Your task to perform on an android device: Check the news Image 0: 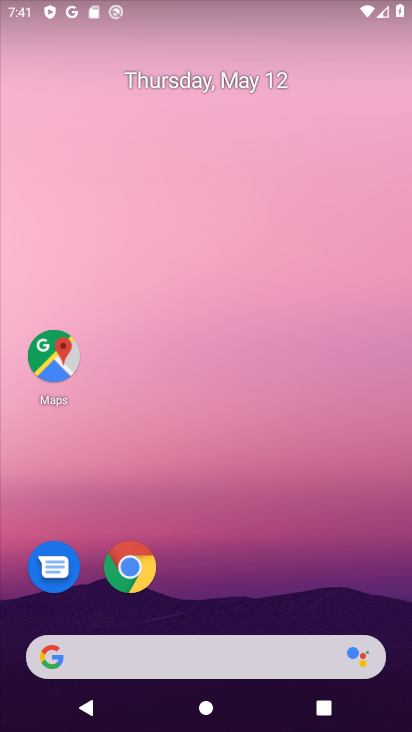
Step 0: drag from (292, 644) to (351, 128)
Your task to perform on an android device: Check the news Image 1: 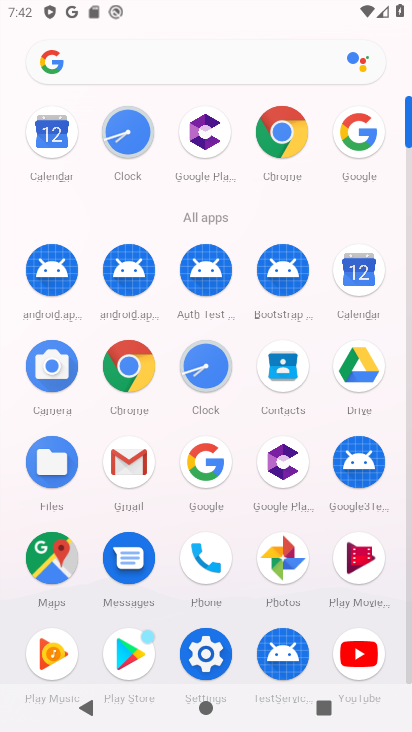
Step 1: drag from (167, 506) to (192, 356)
Your task to perform on an android device: Check the news Image 2: 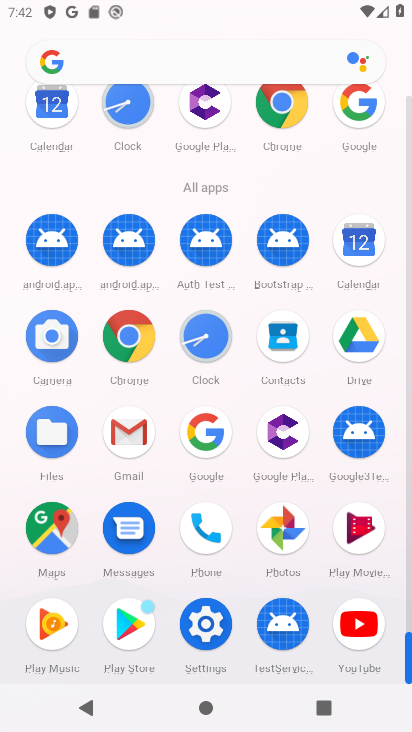
Step 2: click (140, 344)
Your task to perform on an android device: Check the news Image 3: 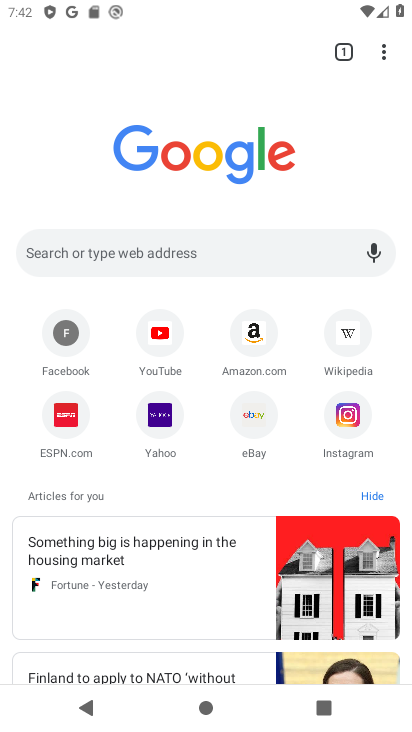
Step 3: click (209, 254)
Your task to perform on an android device: Check the news Image 4: 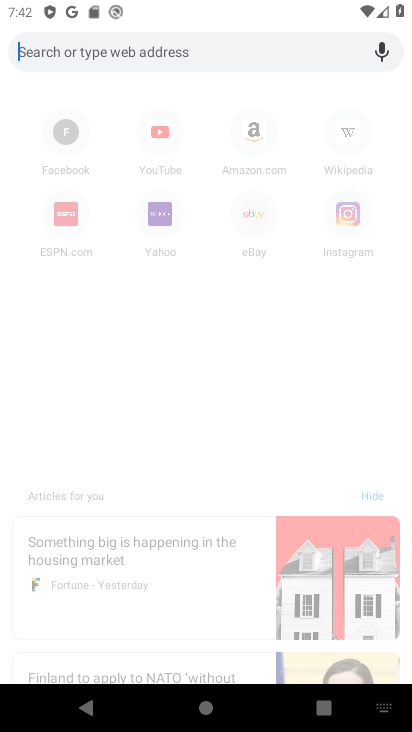
Step 4: type "news"
Your task to perform on an android device: Check the news Image 5: 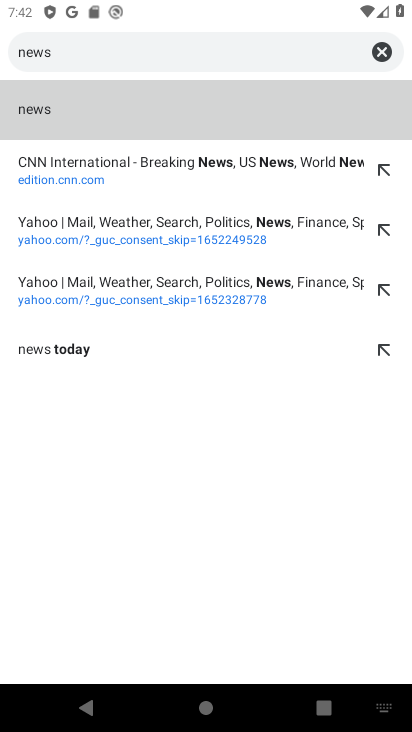
Step 5: click (189, 122)
Your task to perform on an android device: Check the news Image 6: 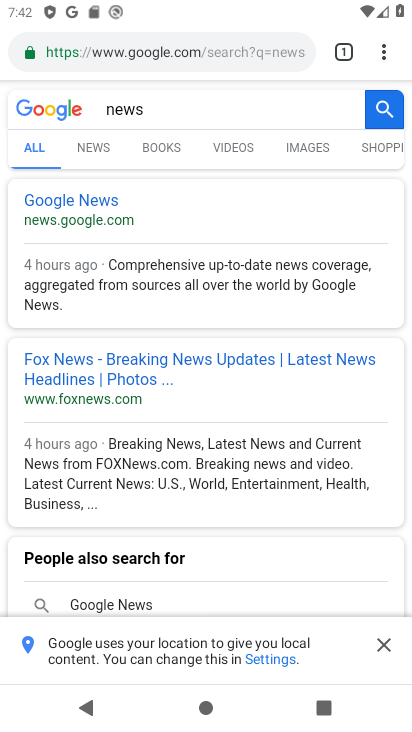
Step 6: click (97, 152)
Your task to perform on an android device: Check the news Image 7: 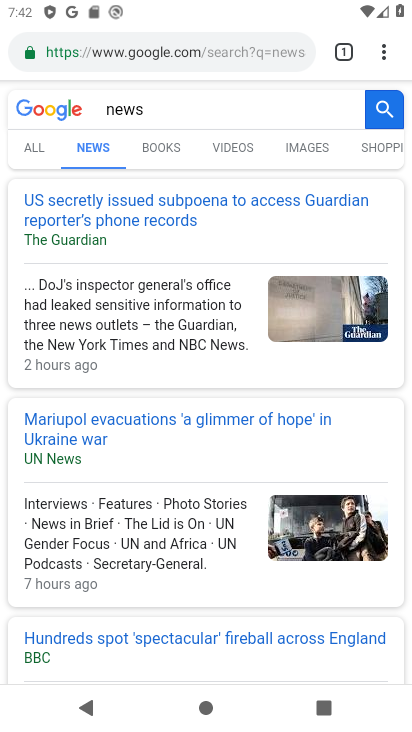
Step 7: task complete